Your task to perform on an android device: turn on data saver in the chrome app Image 0: 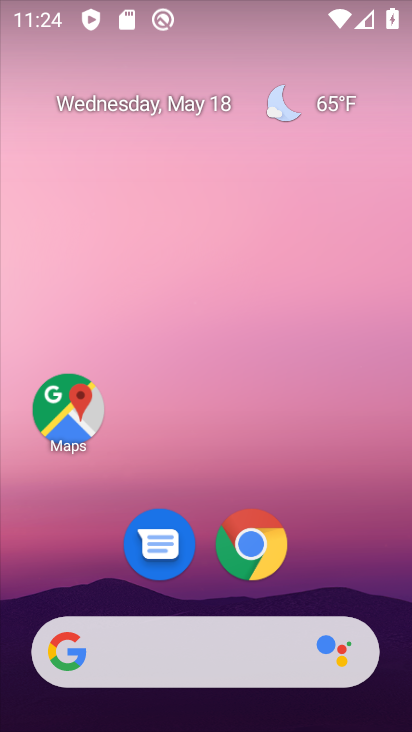
Step 0: drag from (355, 462) to (354, 63)
Your task to perform on an android device: turn on data saver in the chrome app Image 1: 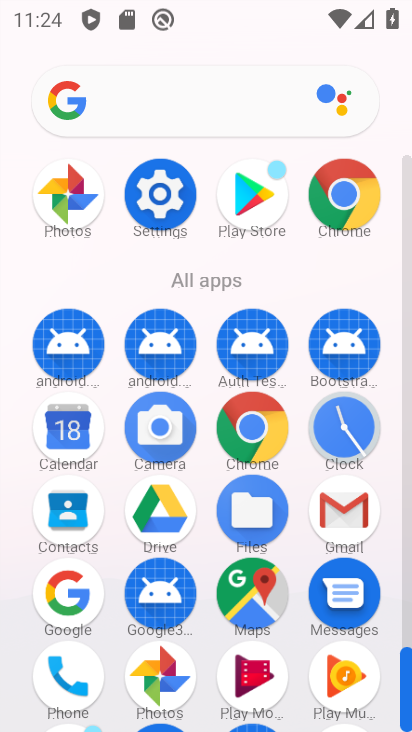
Step 1: click (265, 442)
Your task to perform on an android device: turn on data saver in the chrome app Image 2: 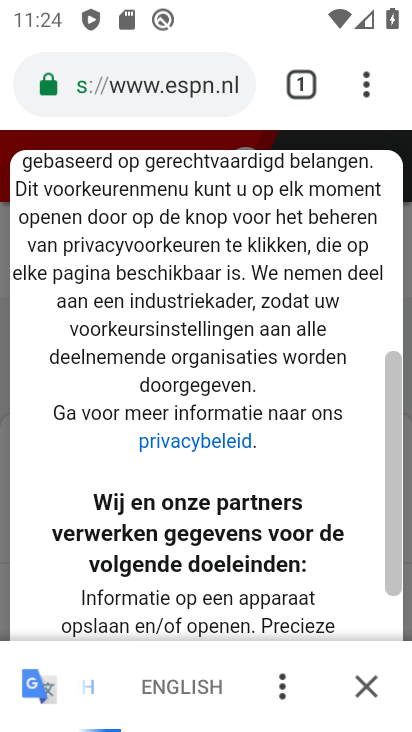
Step 2: click (367, 96)
Your task to perform on an android device: turn on data saver in the chrome app Image 3: 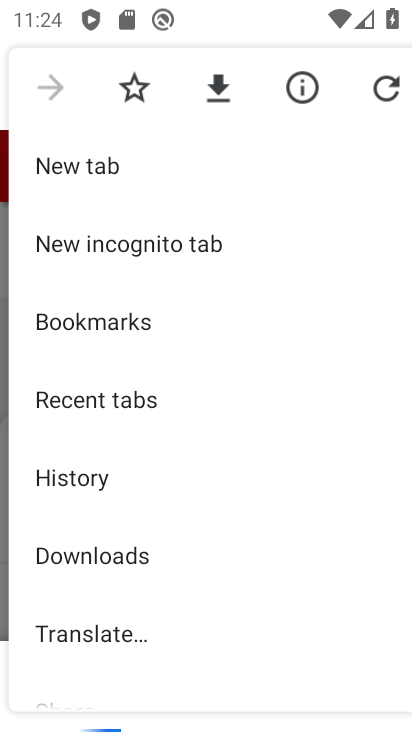
Step 3: drag from (319, 550) to (307, 405)
Your task to perform on an android device: turn on data saver in the chrome app Image 4: 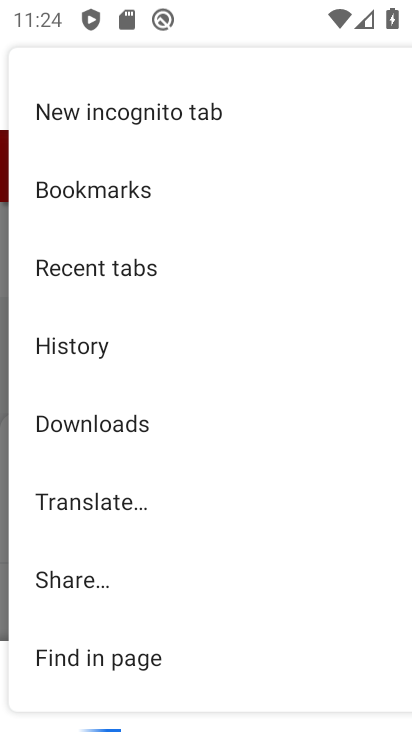
Step 4: drag from (327, 602) to (314, 368)
Your task to perform on an android device: turn on data saver in the chrome app Image 5: 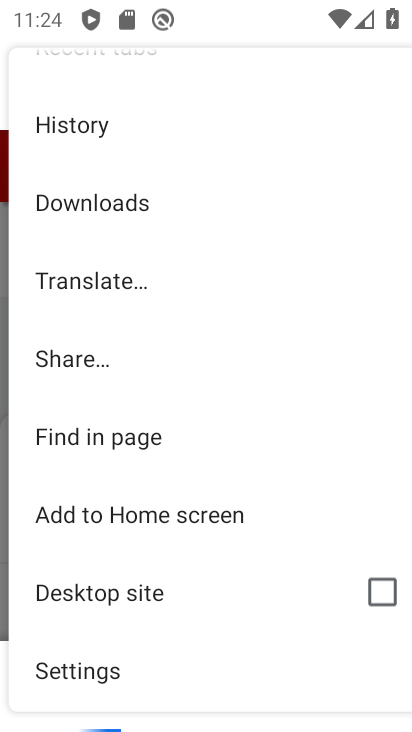
Step 5: drag from (280, 629) to (281, 418)
Your task to perform on an android device: turn on data saver in the chrome app Image 6: 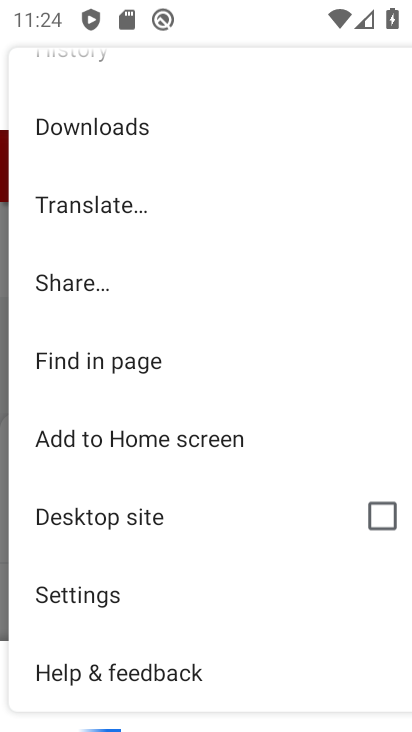
Step 6: click (88, 616)
Your task to perform on an android device: turn on data saver in the chrome app Image 7: 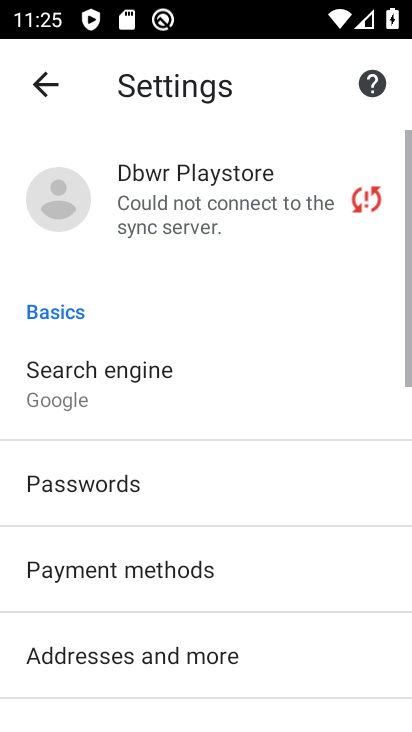
Step 7: drag from (266, 581) to (285, 401)
Your task to perform on an android device: turn on data saver in the chrome app Image 8: 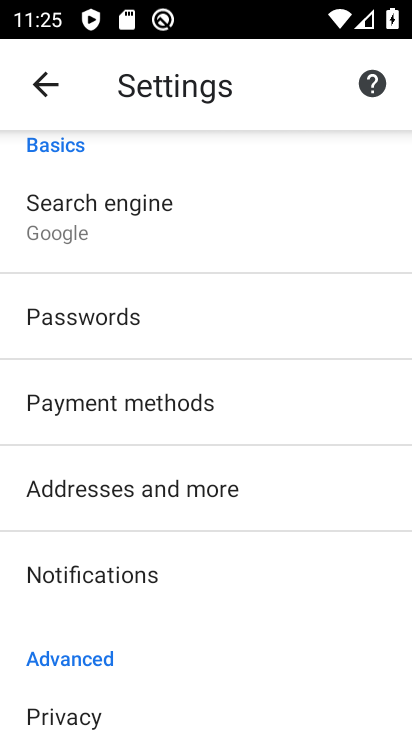
Step 8: drag from (283, 617) to (304, 434)
Your task to perform on an android device: turn on data saver in the chrome app Image 9: 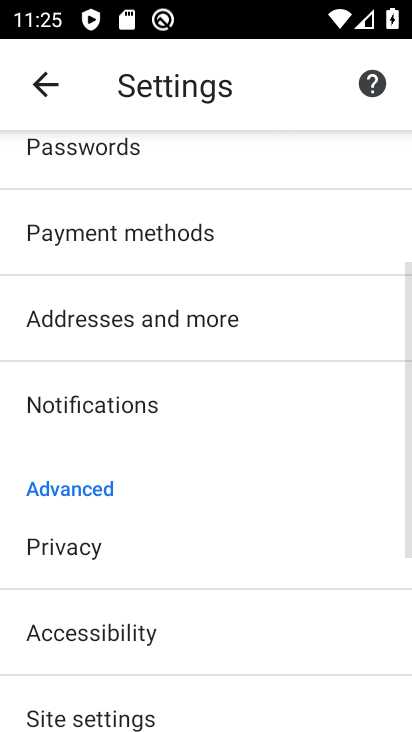
Step 9: drag from (275, 634) to (282, 476)
Your task to perform on an android device: turn on data saver in the chrome app Image 10: 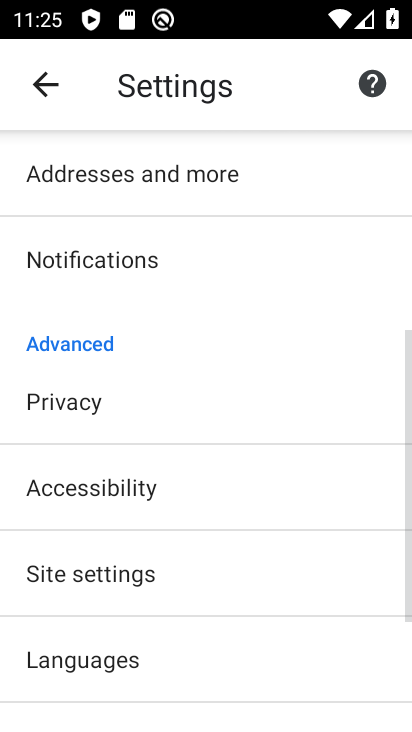
Step 10: drag from (275, 664) to (284, 490)
Your task to perform on an android device: turn on data saver in the chrome app Image 11: 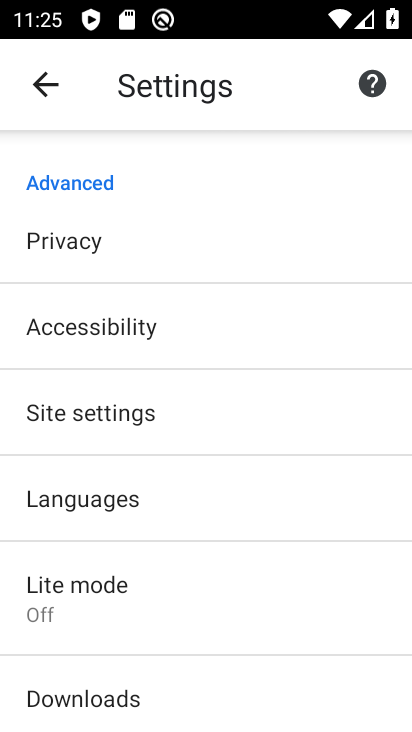
Step 11: click (248, 607)
Your task to perform on an android device: turn on data saver in the chrome app Image 12: 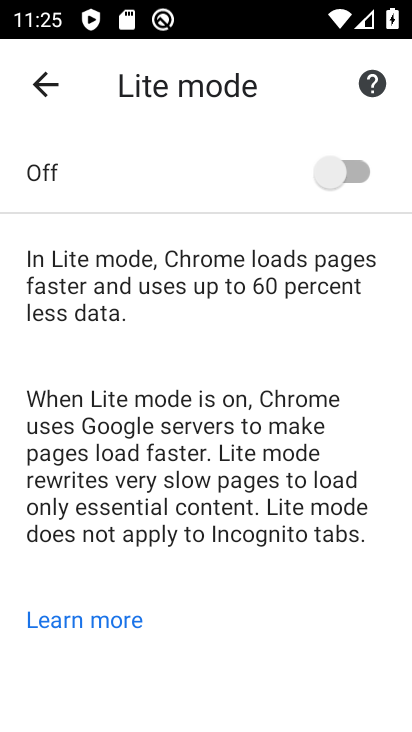
Step 12: click (345, 176)
Your task to perform on an android device: turn on data saver in the chrome app Image 13: 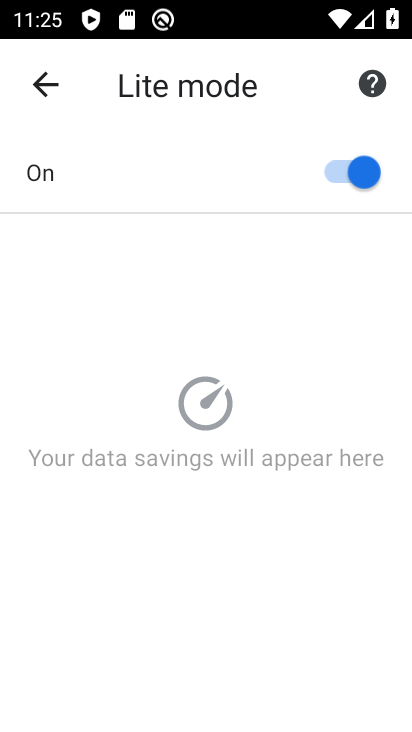
Step 13: task complete